Your task to perform on an android device: turn off picture-in-picture Image 0: 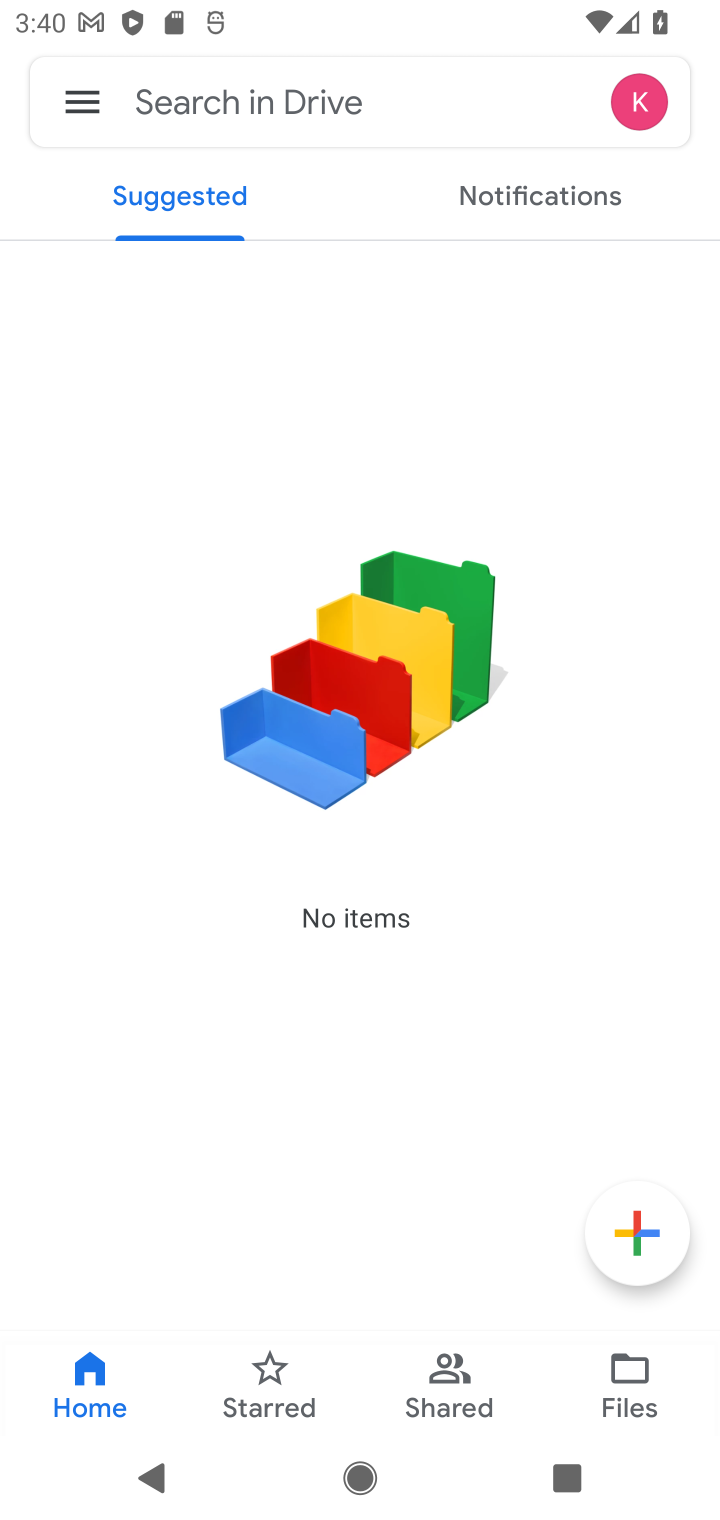
Step 0: press home button
Your task to perform on an android device: turn off picture-in-picture Image 1: 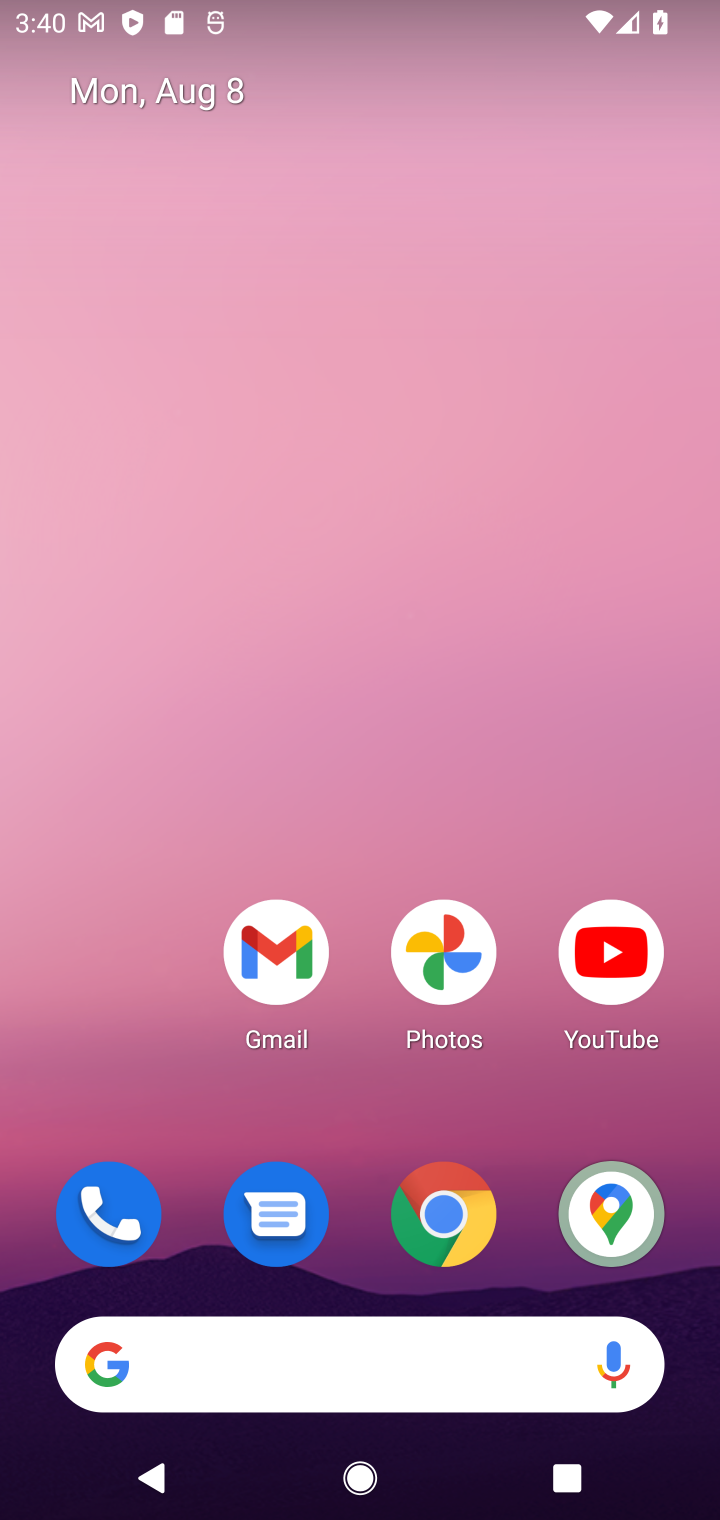
Step 1: drag from (373, 1243) to (372, 11)
Your task to perform on an android device: turn off picture-in-picture Image 2: 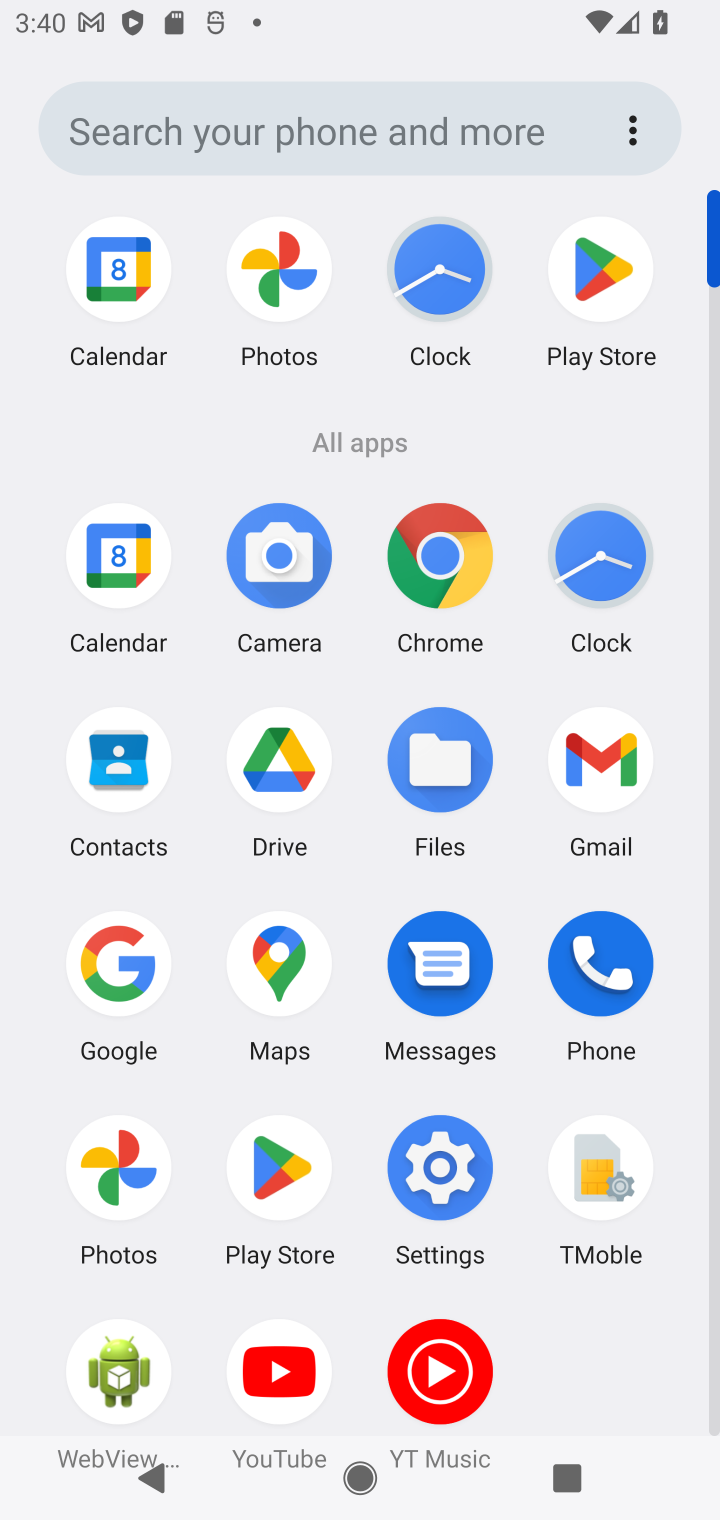
Step 2: click (433, 1166)
Your task to perform on an android device: turn off picture-in-picture Image 3: 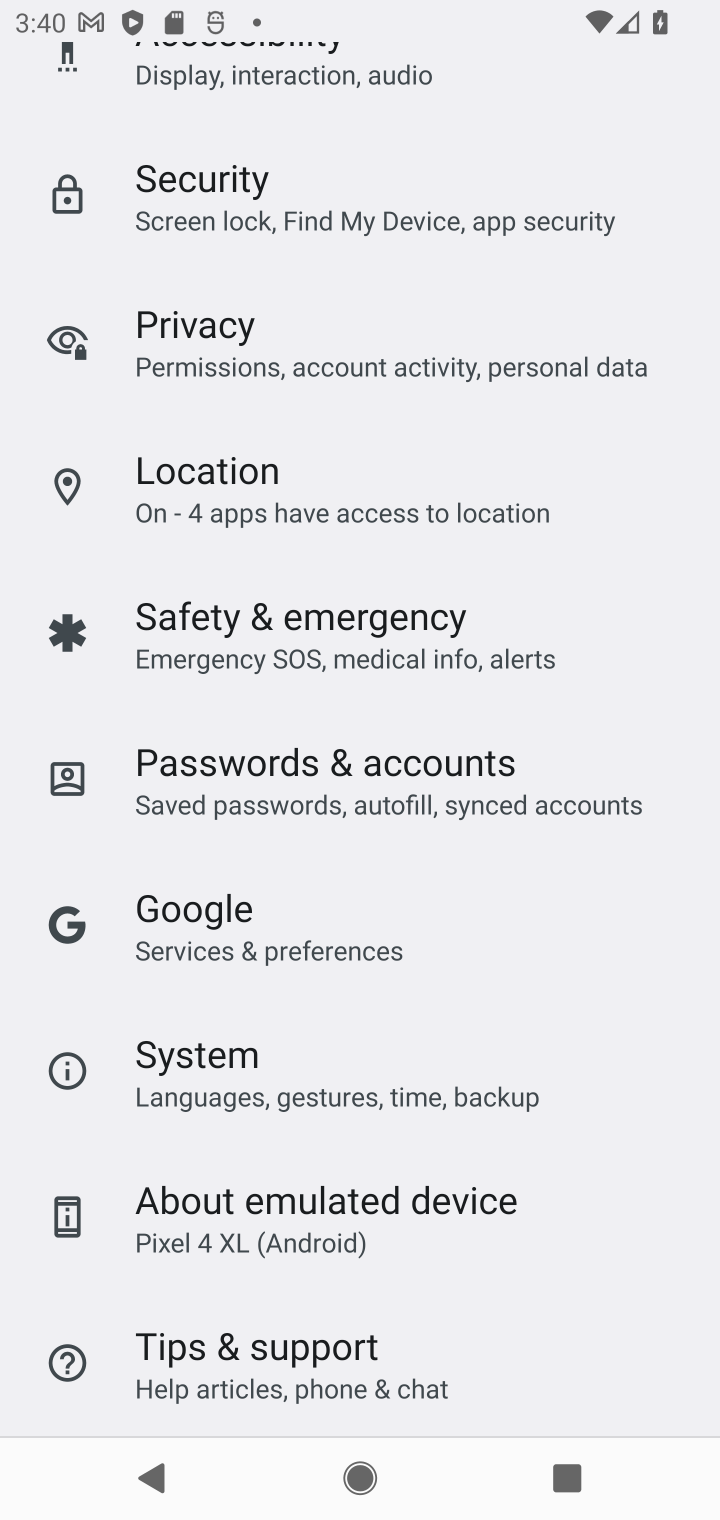
Step 3: drag from (324, 1272) to (322, 464)
Your task to perform on an android device: turn off picture-in-picture Image 4: 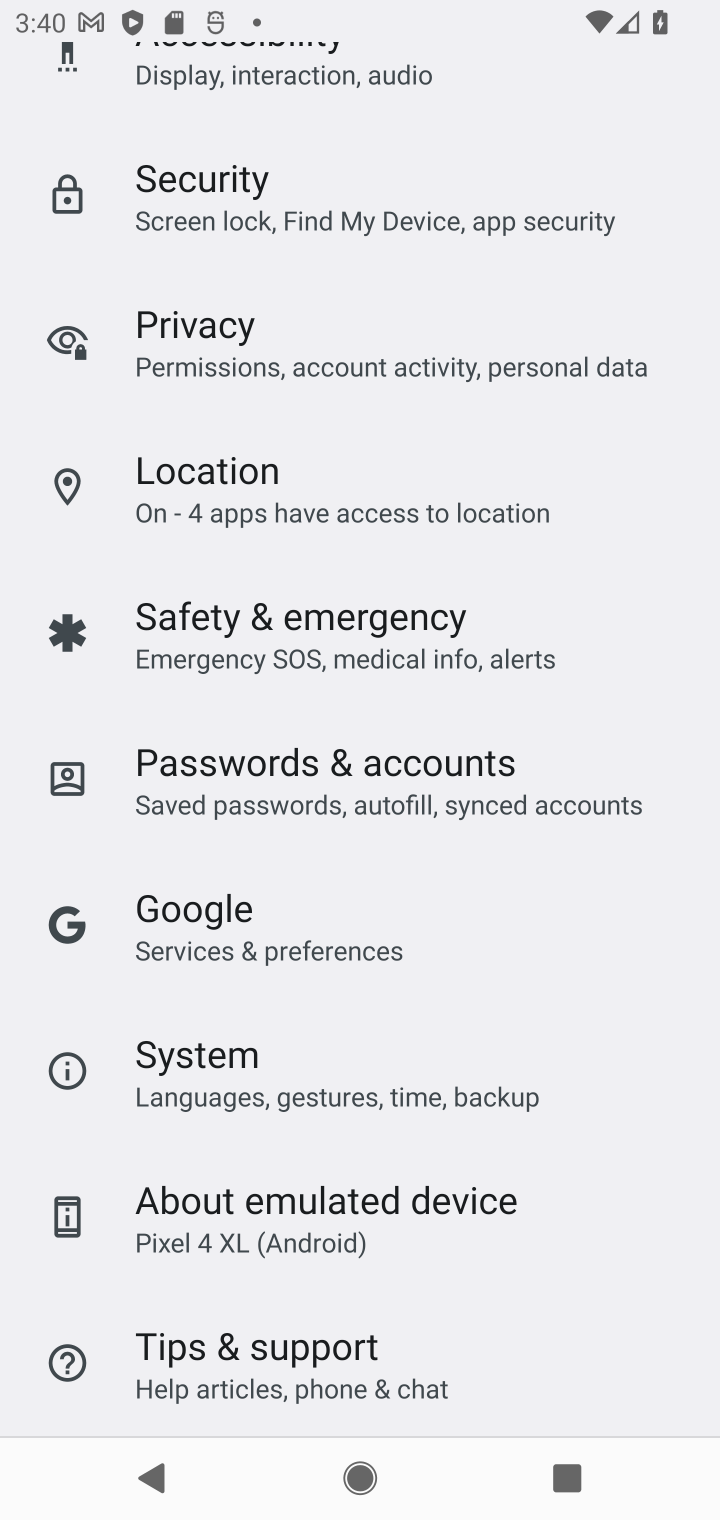
Step 4: drag from (264, 337) to (283, 1138)
Your task to perform on an android device: turn off picture-in-picture Image 5: 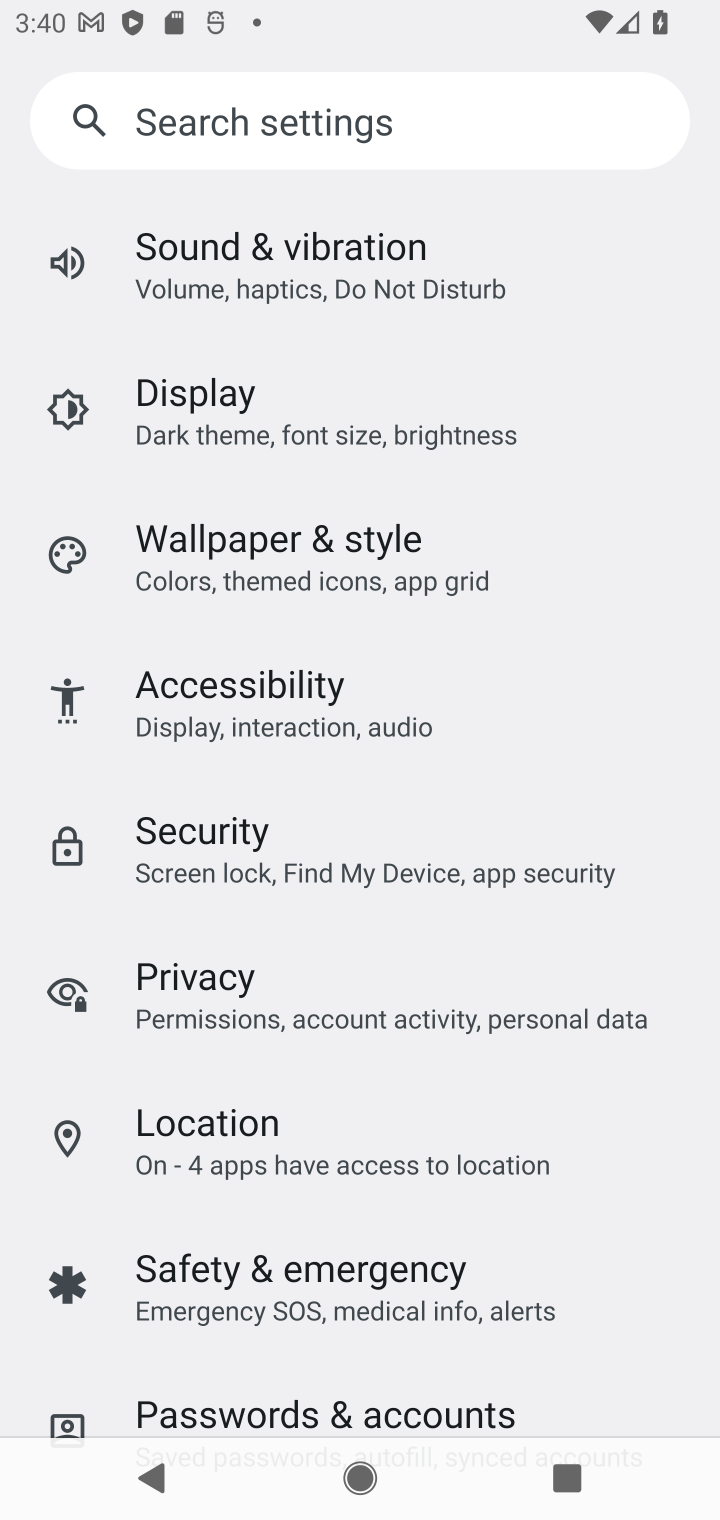
Step 5: drag from (203, 257) to (327, 1288)
Your task to perform on an android device: turn off picture-in-picture Image 6: 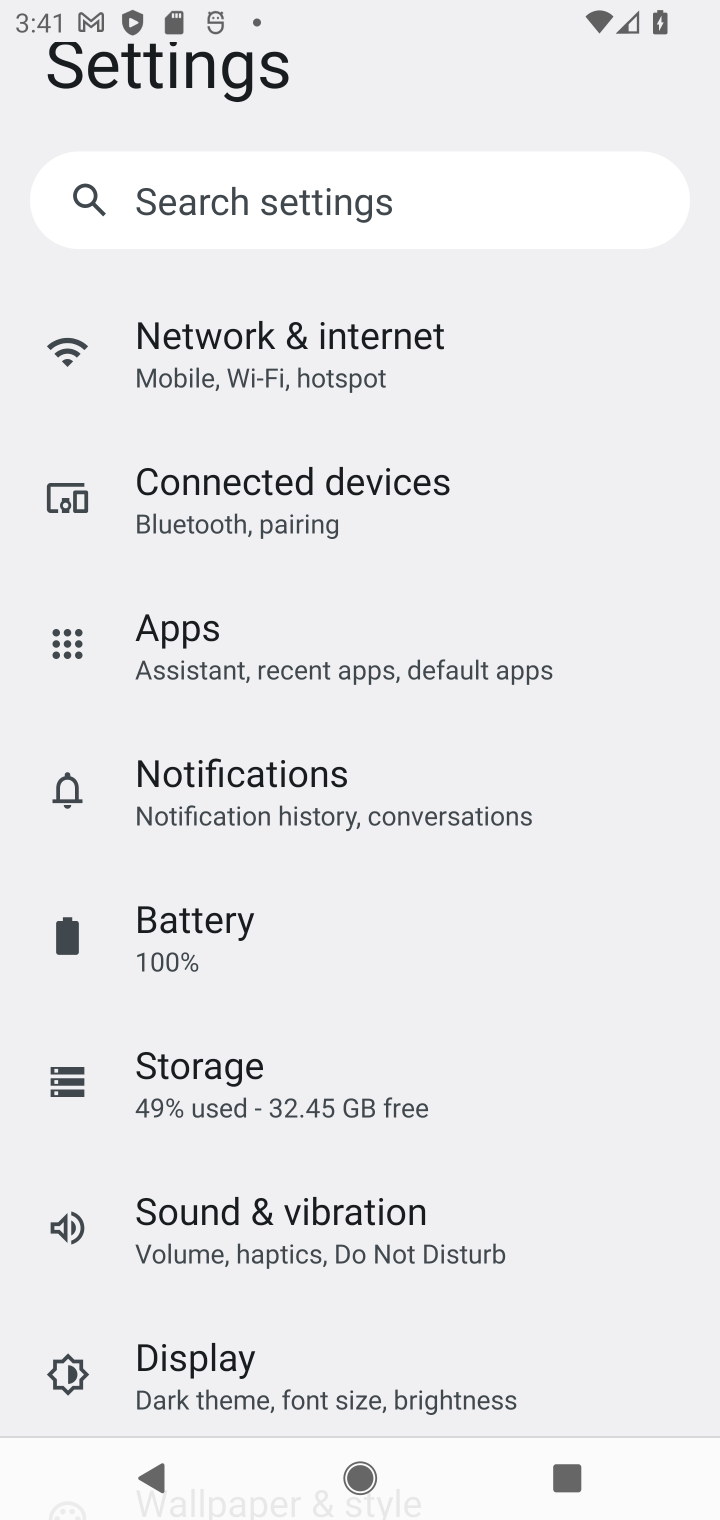
Step 6: drag from (278, 326) to (366, 1175)
Your task to perform on an android device: turn off picture-in-picture Image 7: 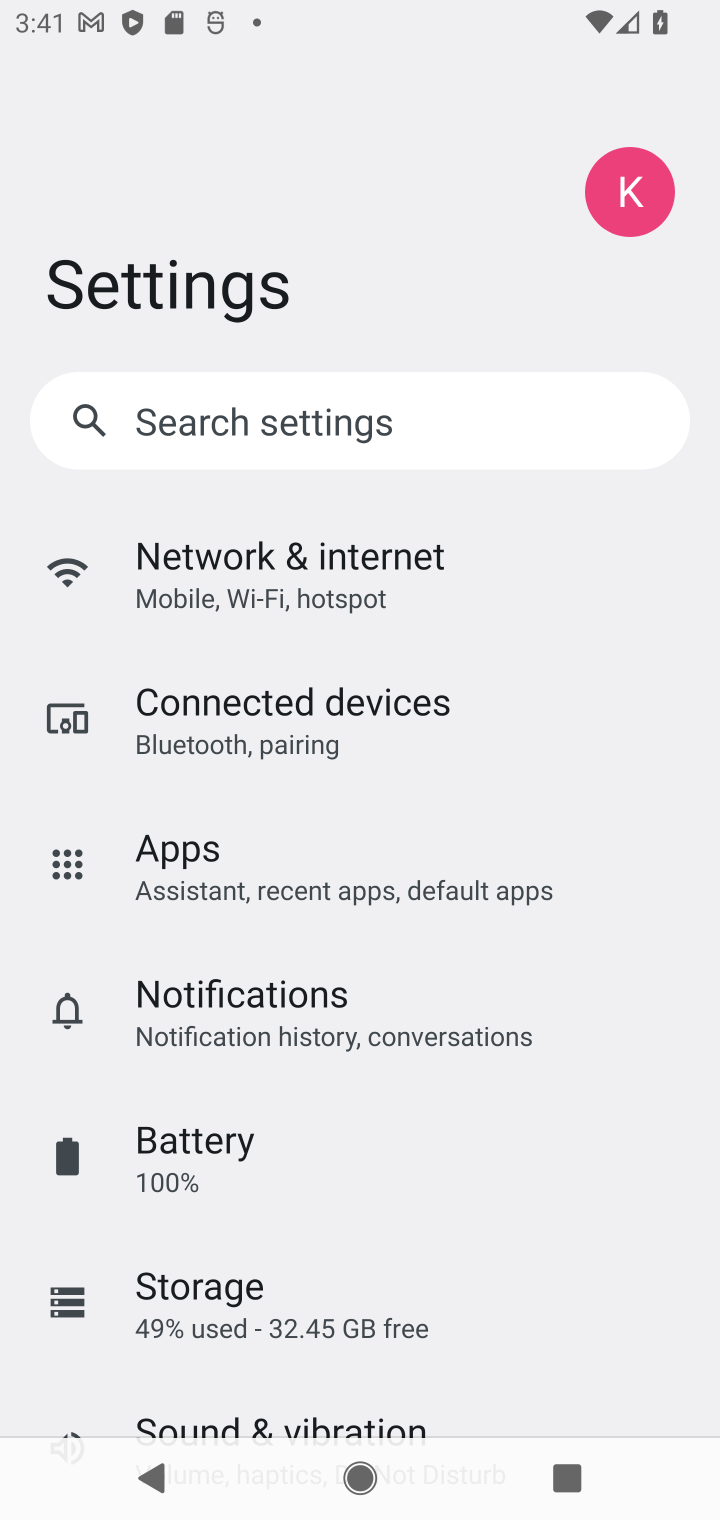
Step 7: click (214, 1005)
Your task to perform on an android device: turn off picture-in-picture Image 8: 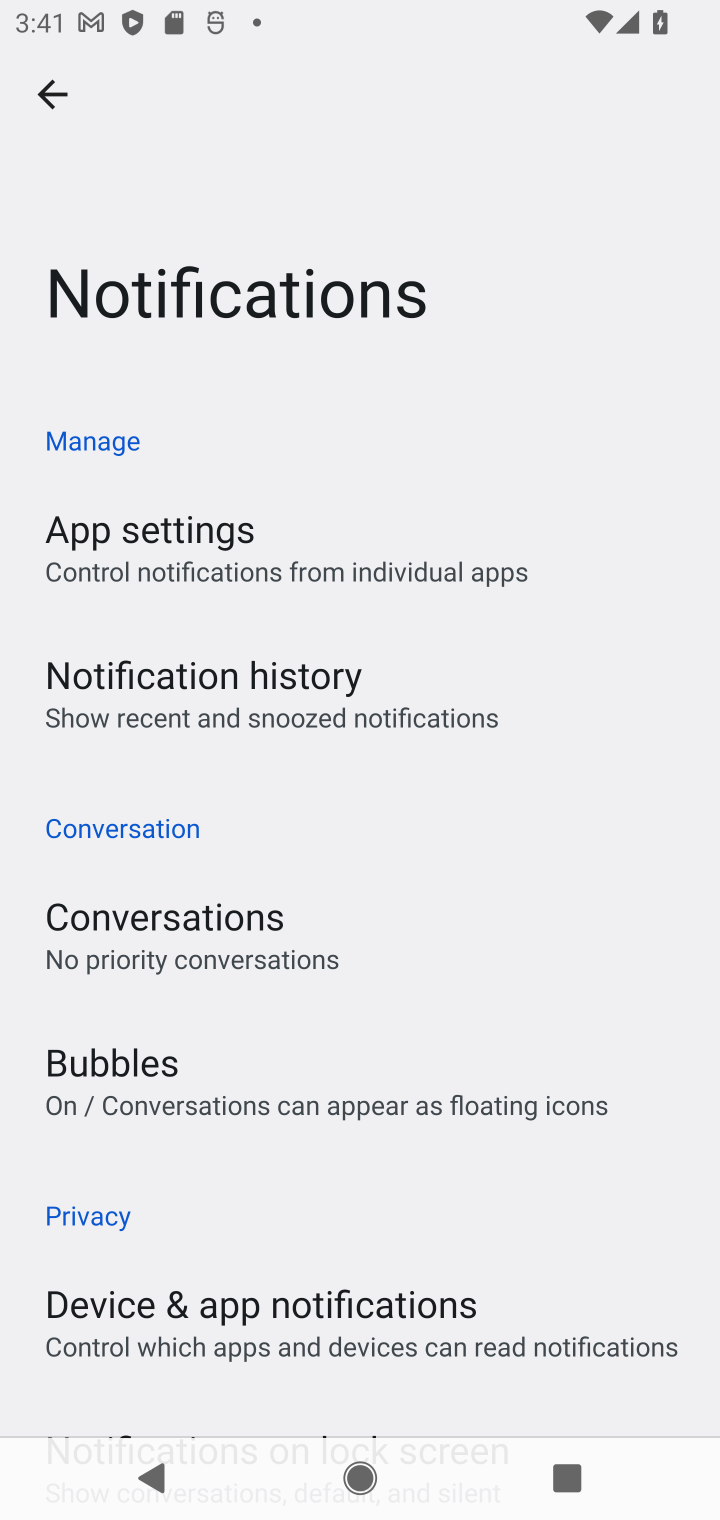
Step 8: drag from (214, 1193) to (302, 410)
Your task to perform on an android device: turn off picture-in-picture Image 9: 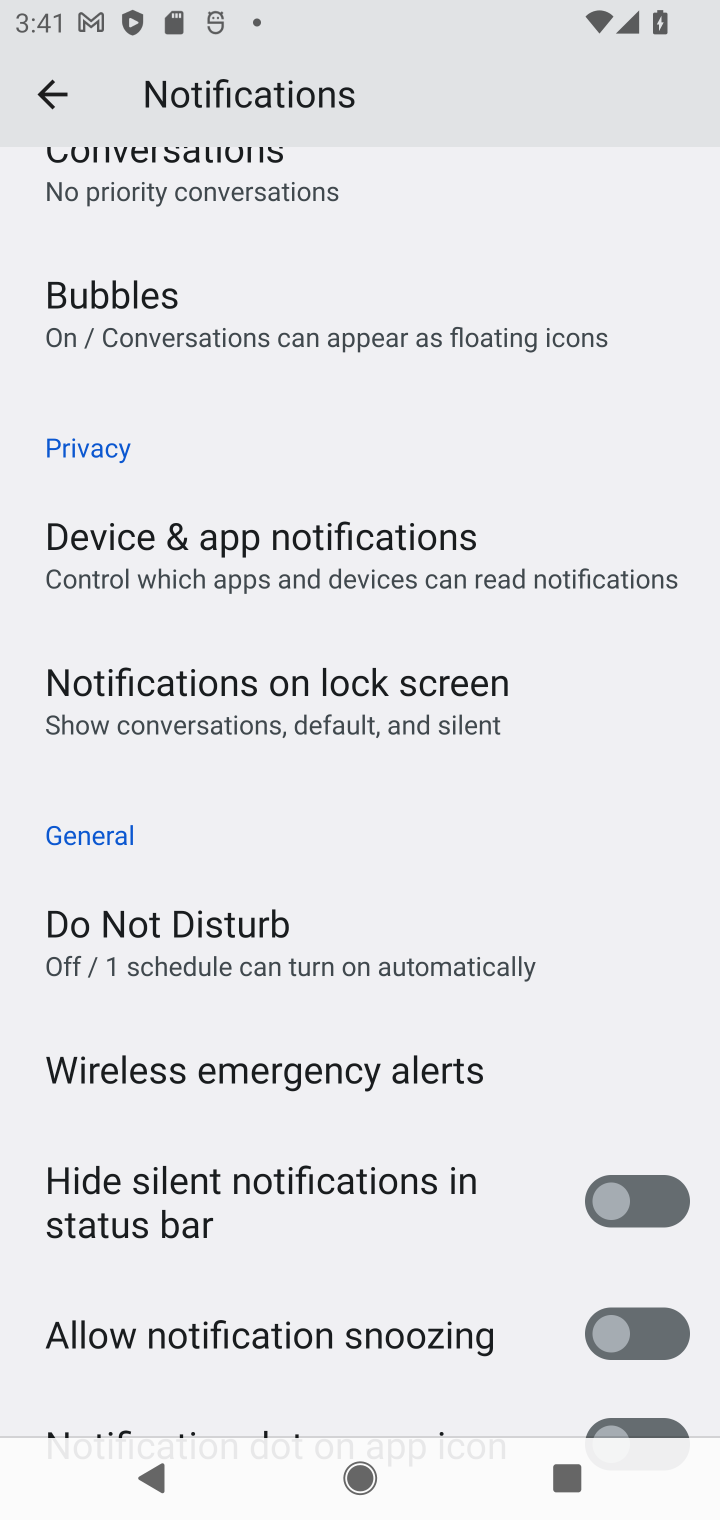
Step 9: drag from (282, 1278) to (326, 614)
Your task to perform on an android device: turn off picture-in-picture Image 10: 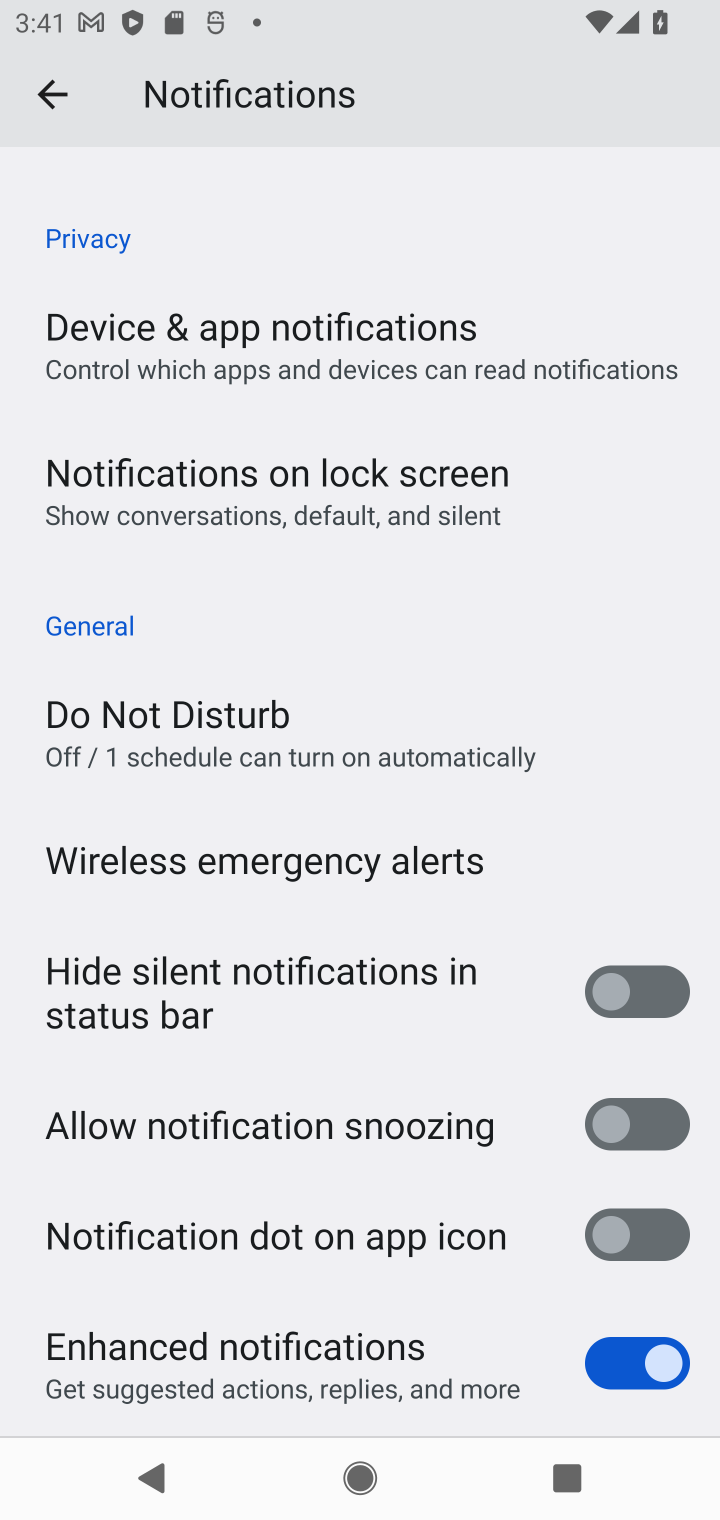
Step 10: drag from (288, 373) to (301, 930)
Your task to perform on an android device: turn off picture-in-picture Image 11: 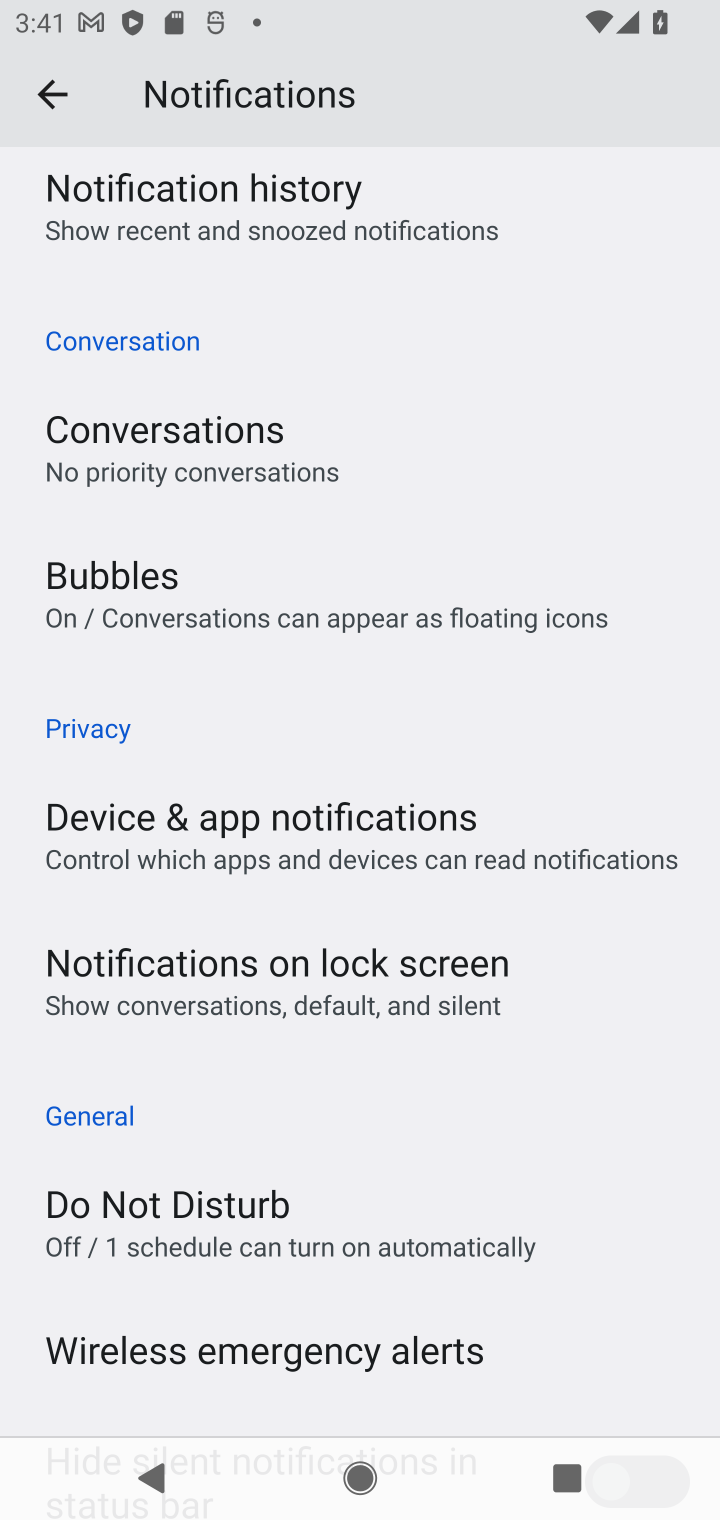
Step 11: drag from (272, 312) to (330, 890)
Your task to perform on an android device: turn off picture-in-picture Image 12: 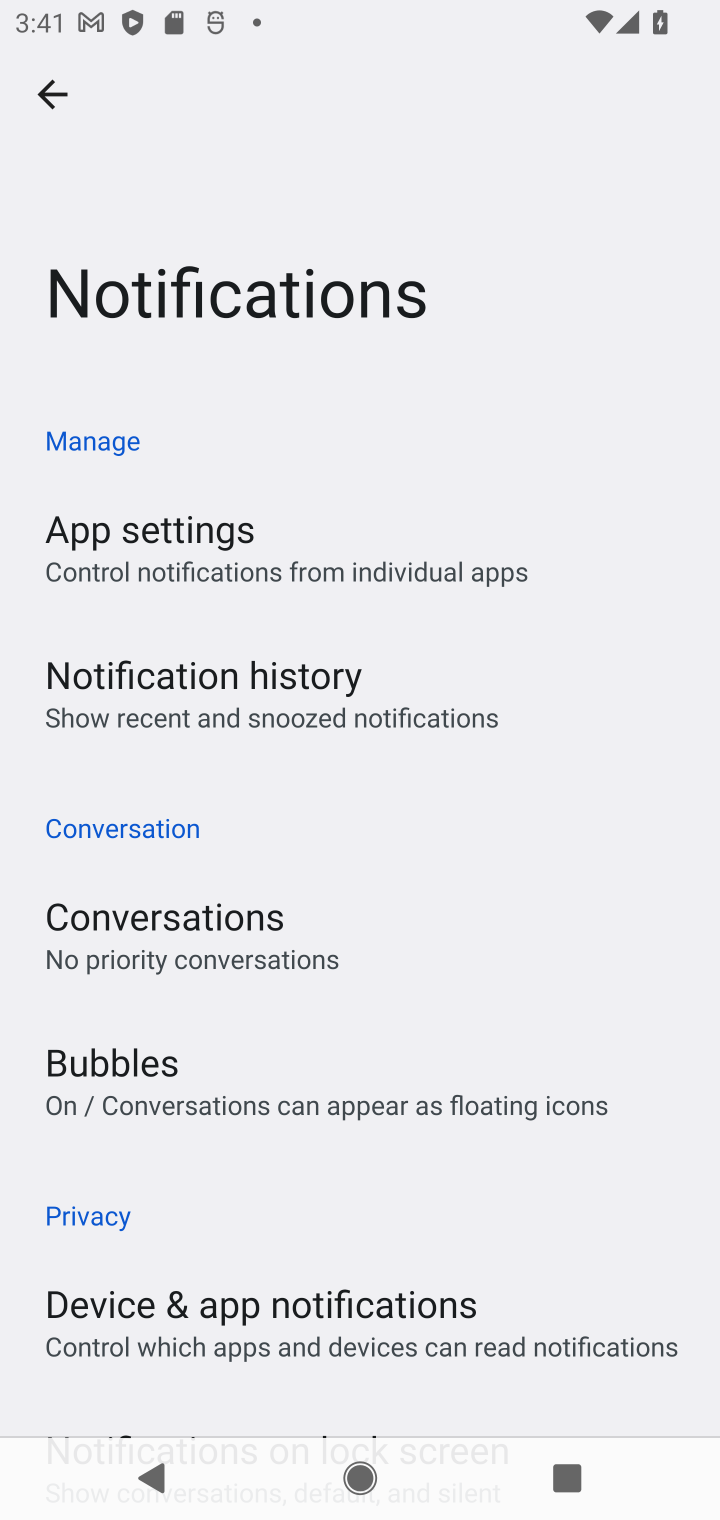
Step 12: drag from (228, 1122) to (228, 544)
Your task to perform on an android device: turn off picture-in-picture Image 13: 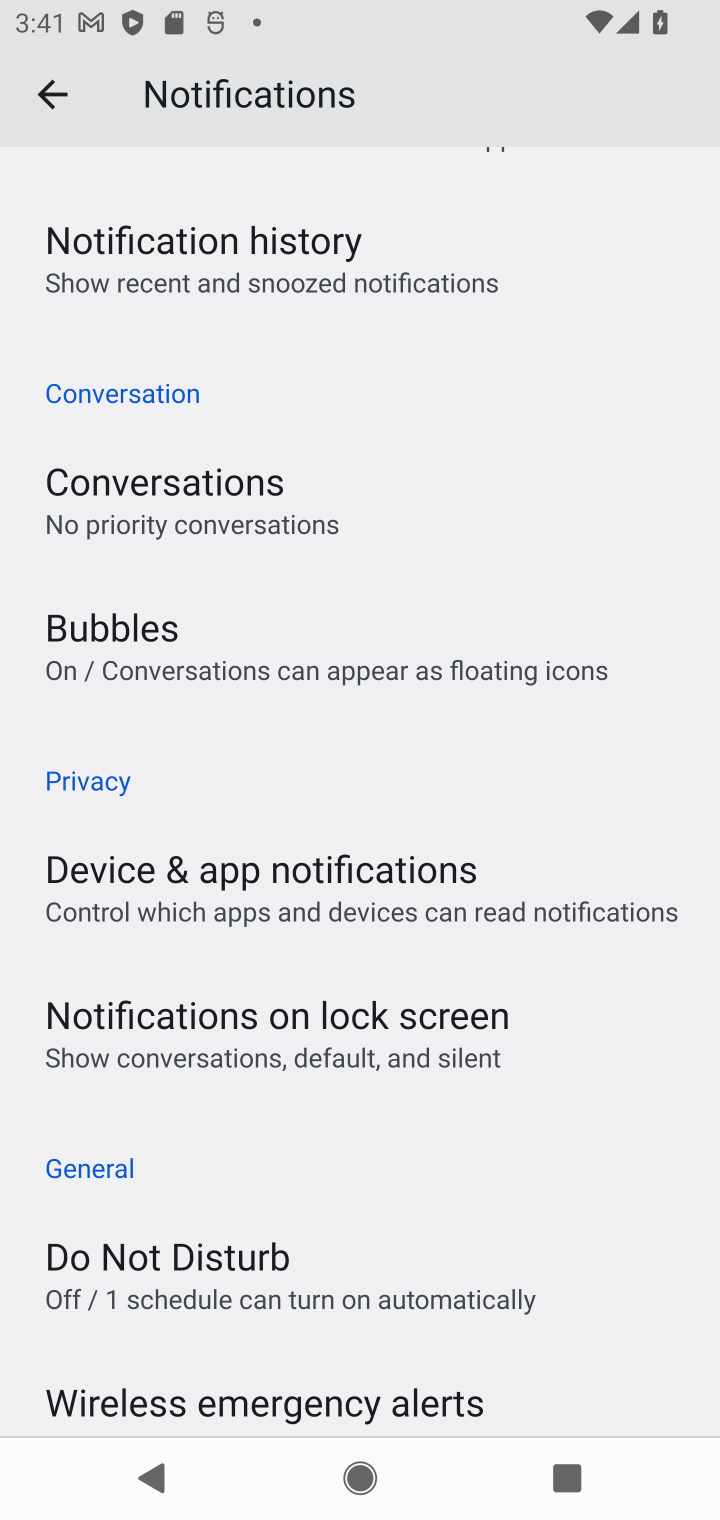
Step 13: drag from (280, 1336) to (304, 830)
Your task to perform on an android device: turn off picture-in-picture Image 14: 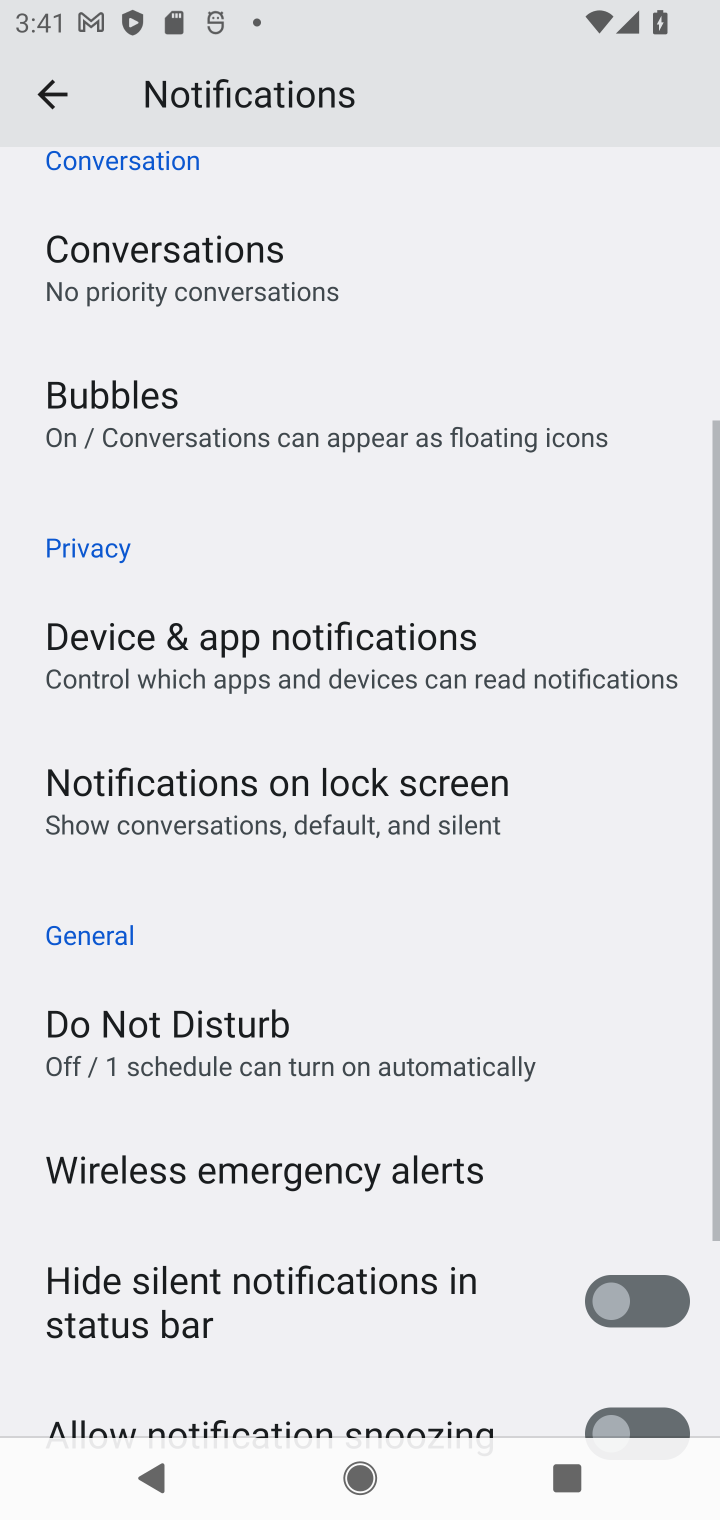
Step 14: drag from (311, 1308) to (306, 822)
Your task to perform on an android device: turn off picture-in-picture Image 15: 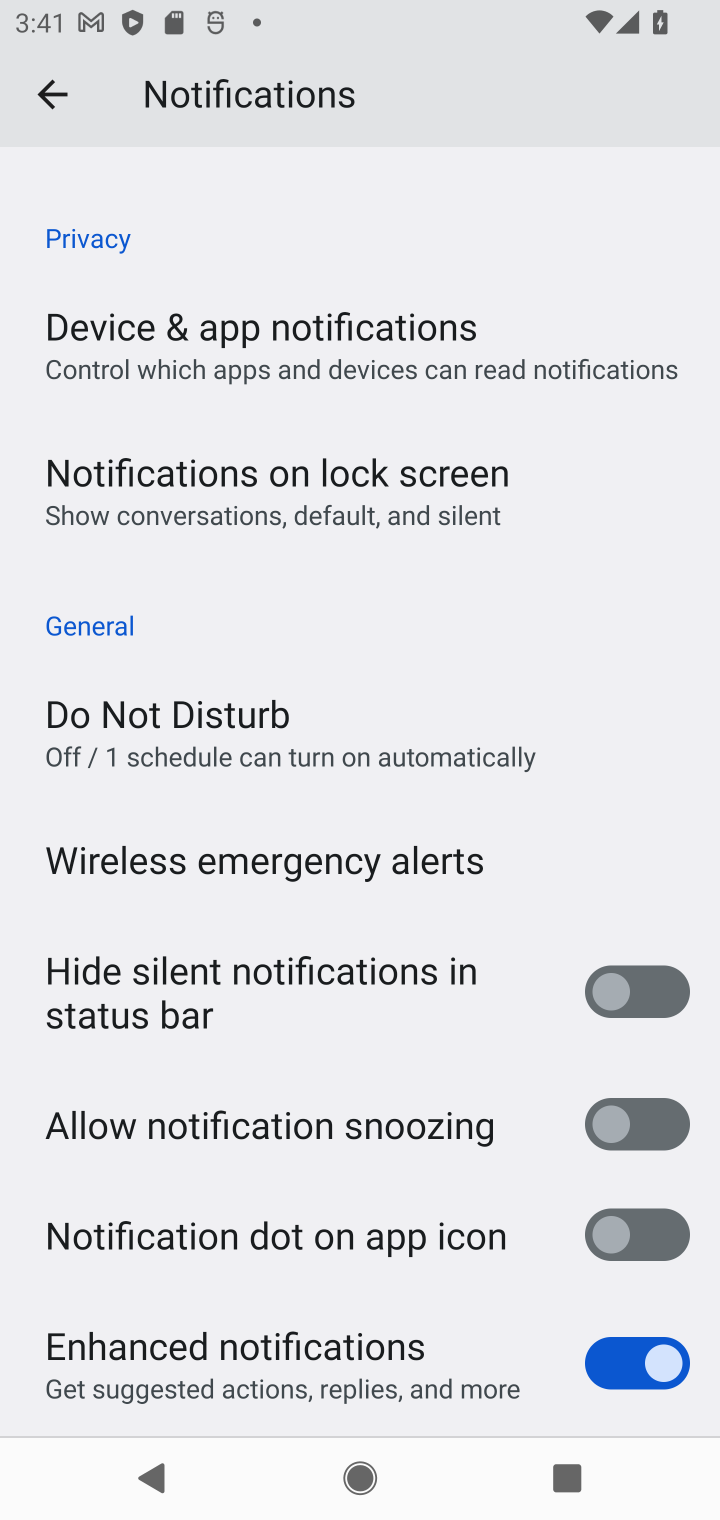
Step 15: drag from (294, 1294) to (292, 634)
Your task to perform on an android device: turn off picture-in-picture Image 16: 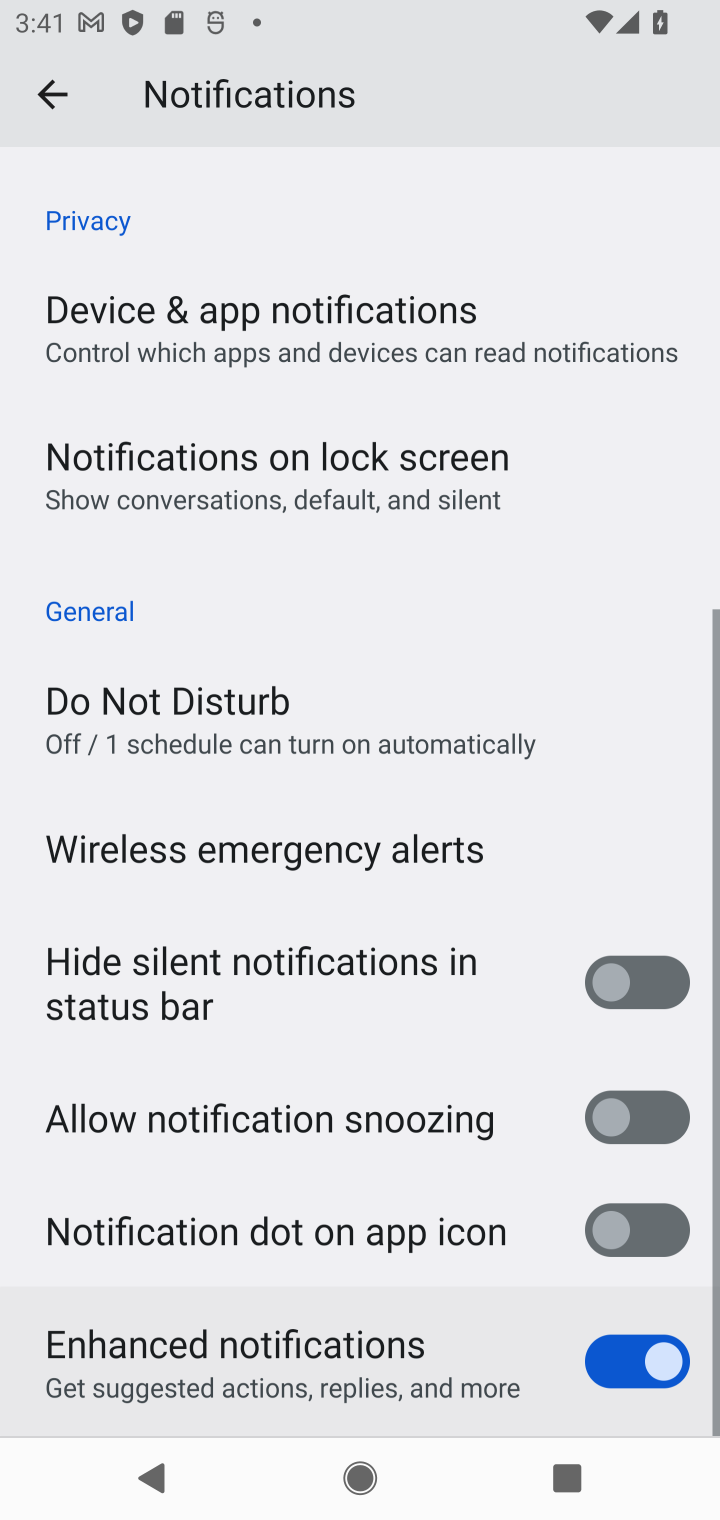
Step 16: drag from (312, 438) to (314, 968)
Your task to perform on an android device: turn off picture-in-picture Image 17: 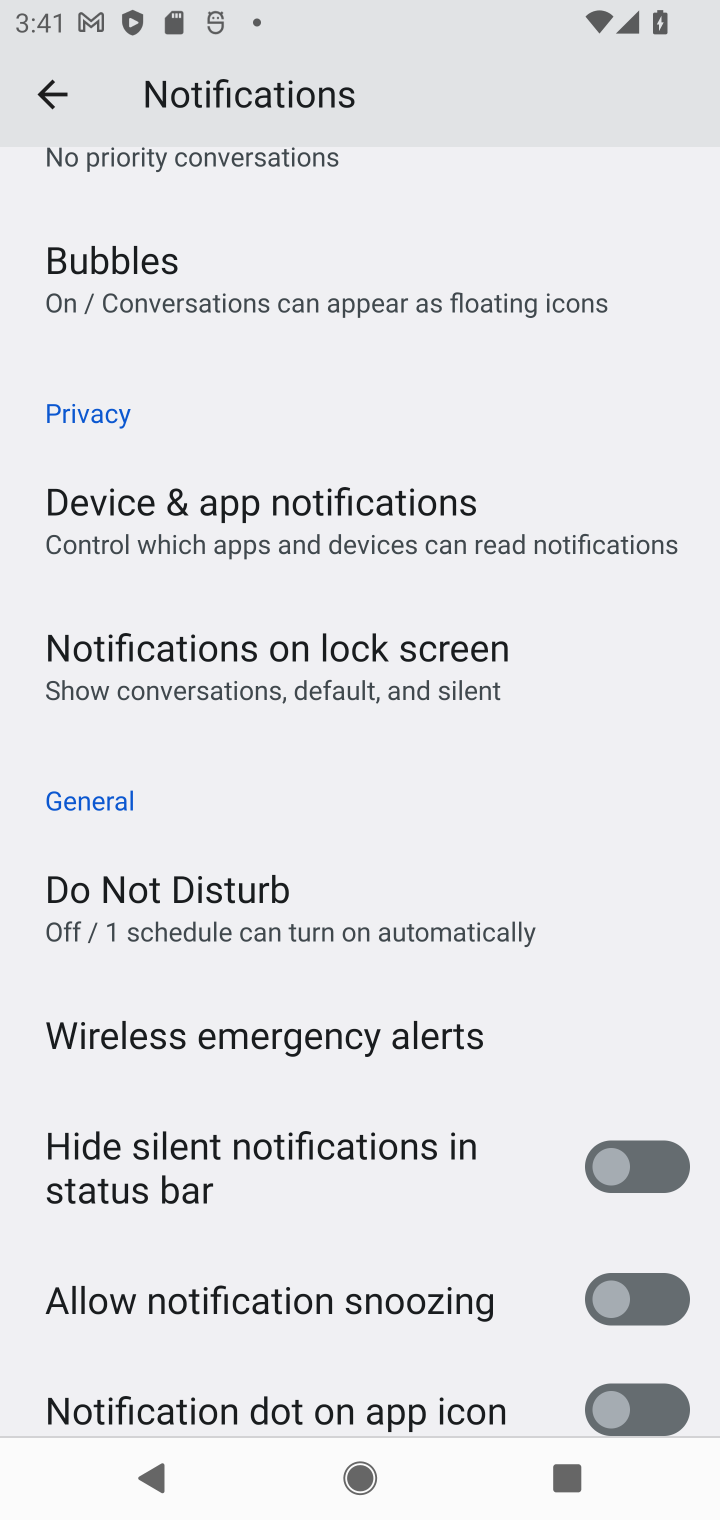
Step 17: drag from (277, 299) to (273, 1046)
Your task to perform on an android device: turn off picture-in-picture Image 18: 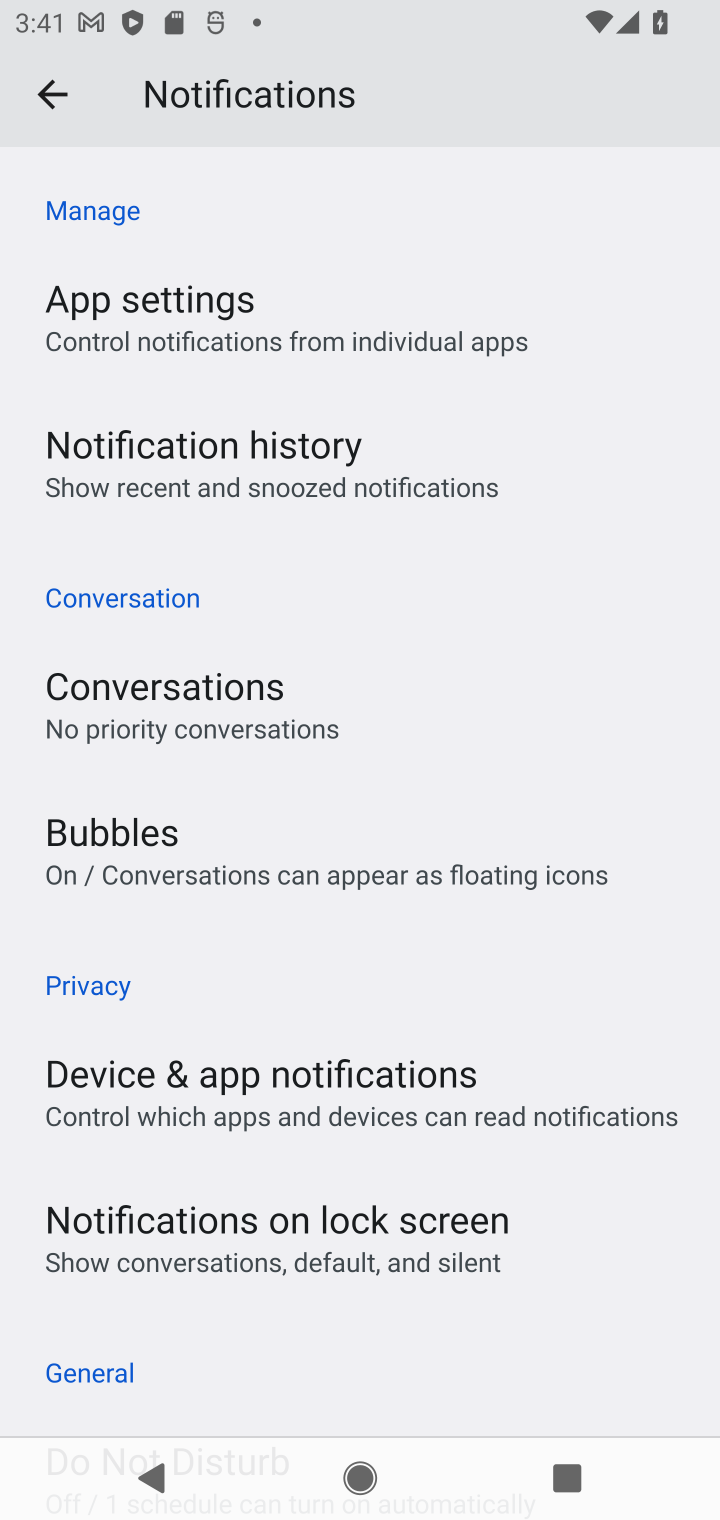
Step 18: drag from (338, 355) to (351, 994)
Your task to perform on an android device: turn off picture-in-picture Image 19: 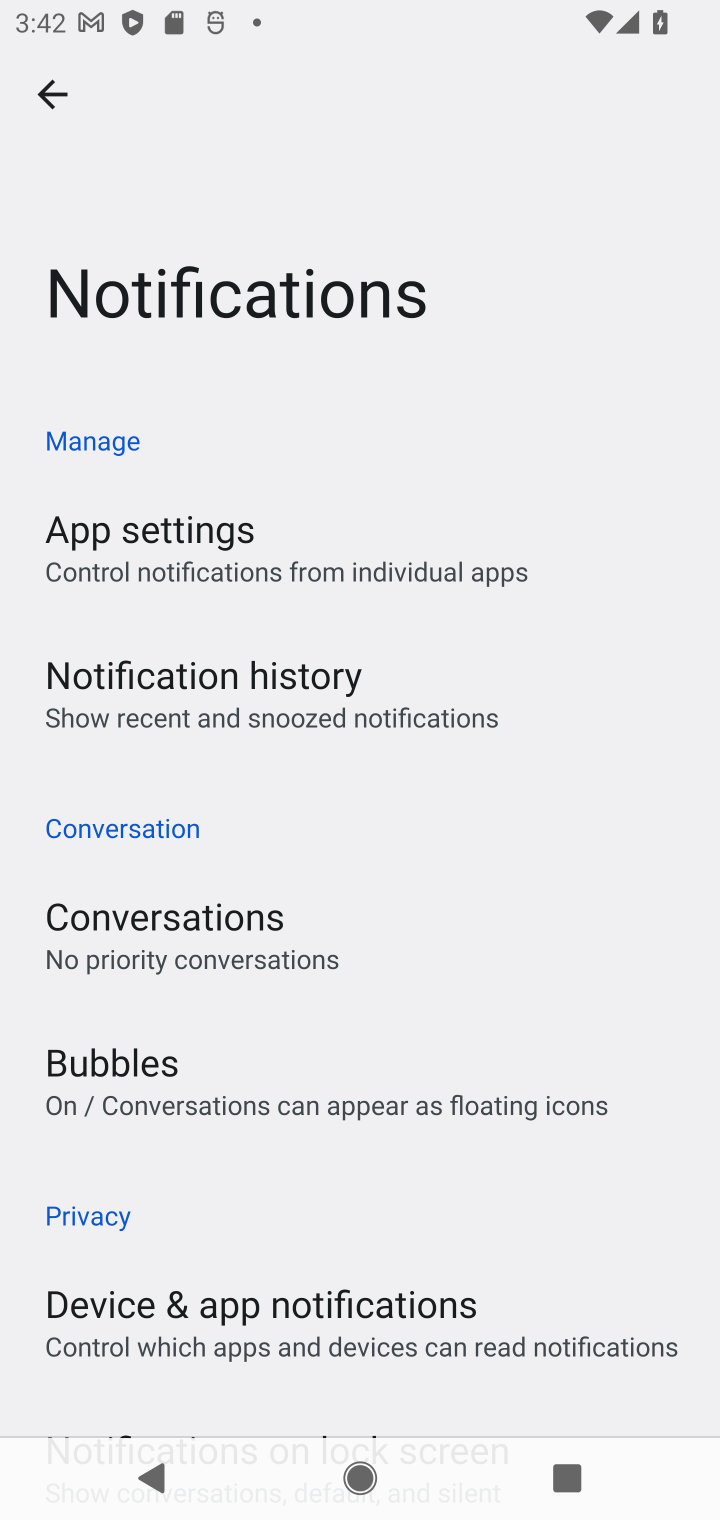
Step 19: click (225, 529)
Your task to perform on an android device: turn off picture-in-picture Image 20: 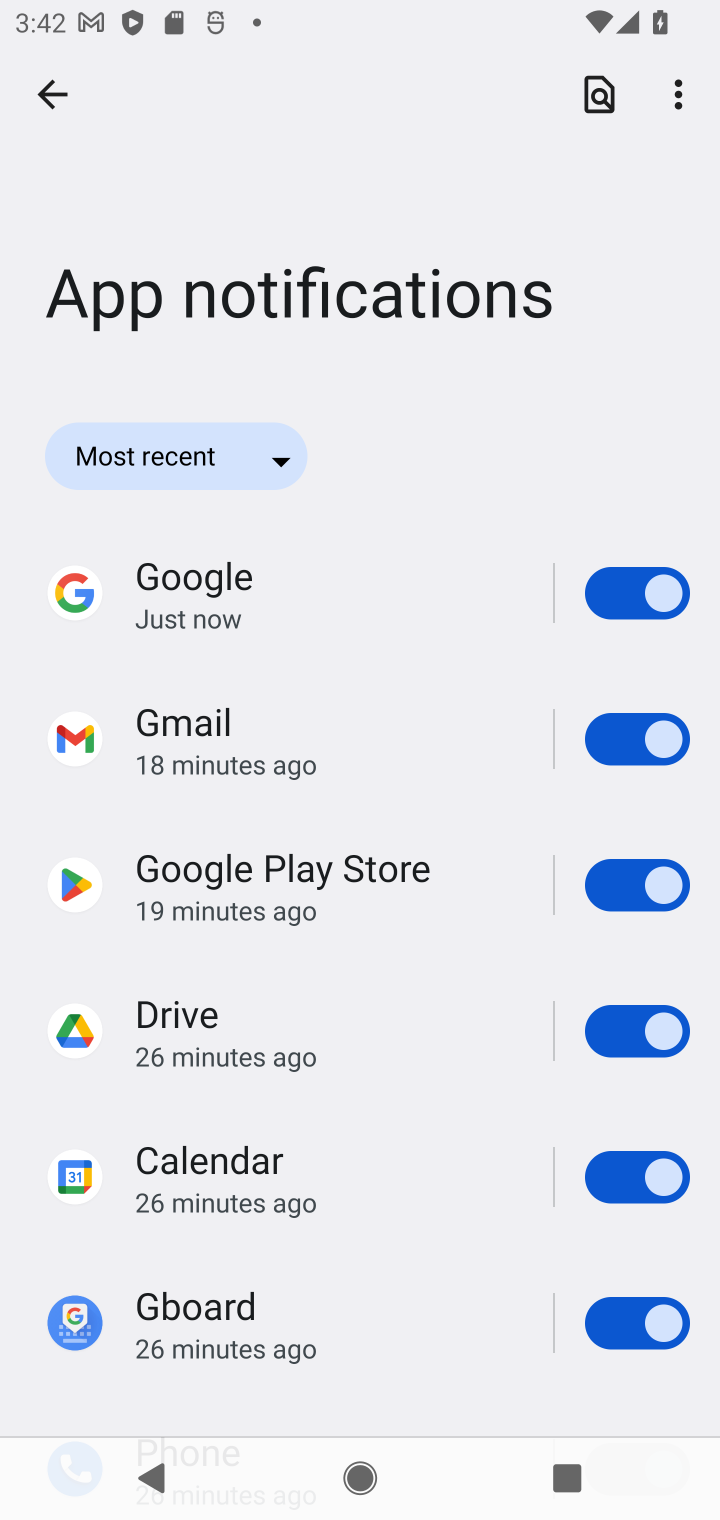
Step 20: task complete